Your task to perform on an android device: Go to eBay Image 0: 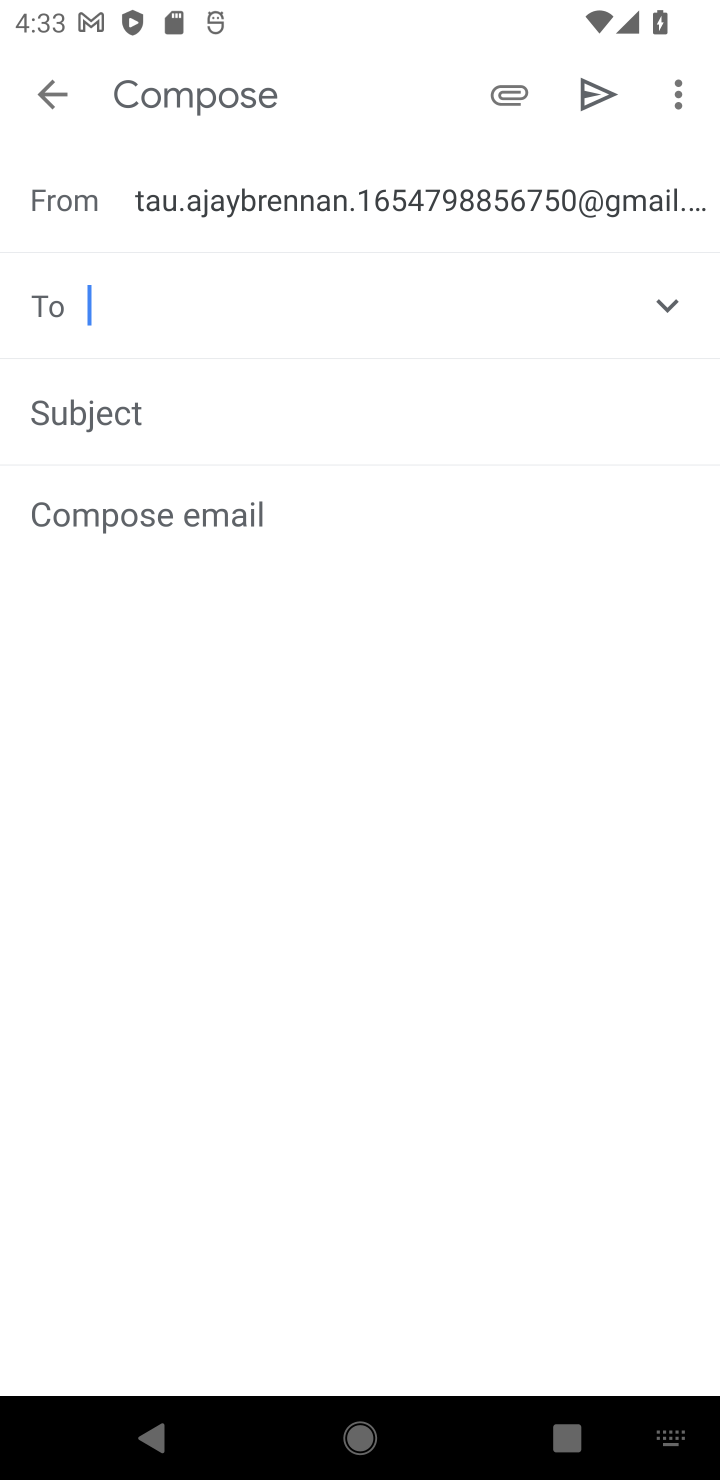
Step 0: press home button
Your task to perform on an android device: Go to eBay Image 1: 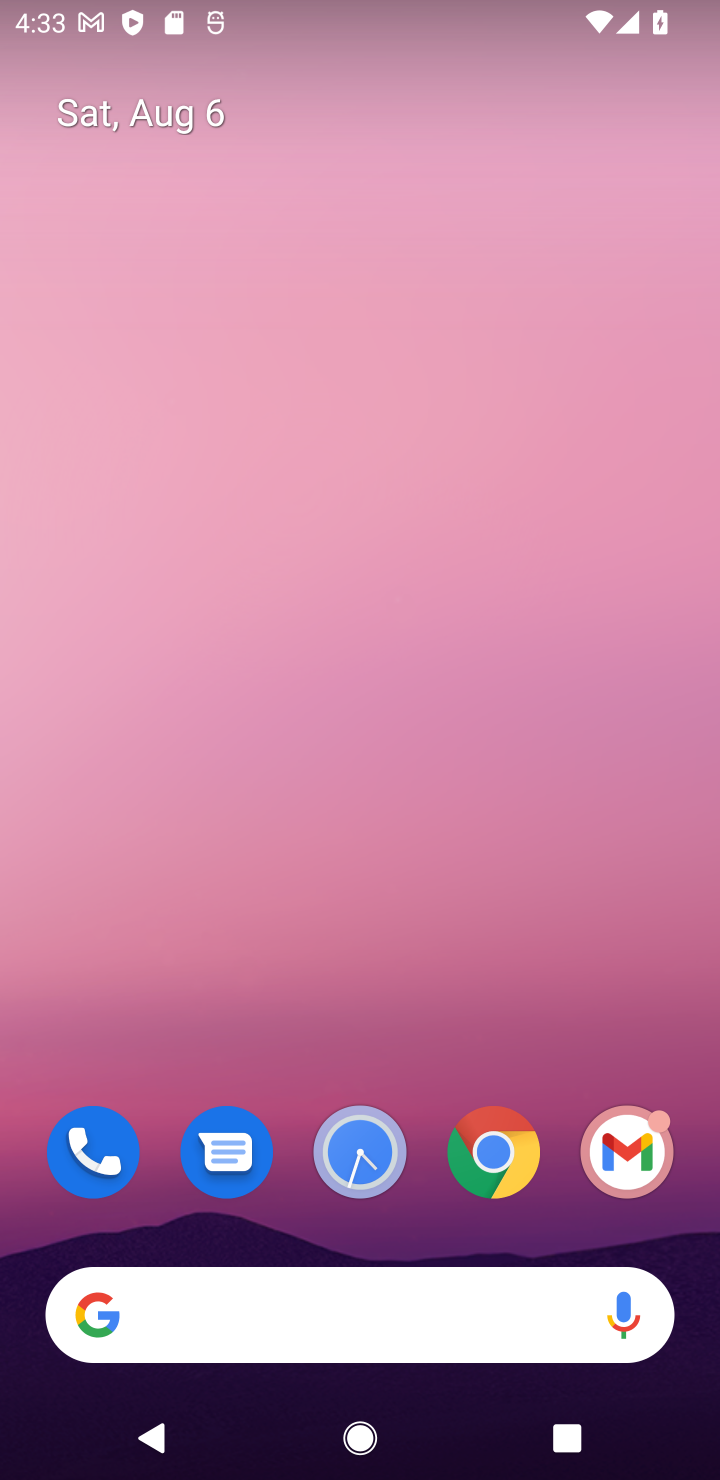
Step 1: drag from (487, 249) to (478, 164)
Your task to perform on an android device: Go to eBay Image 2: 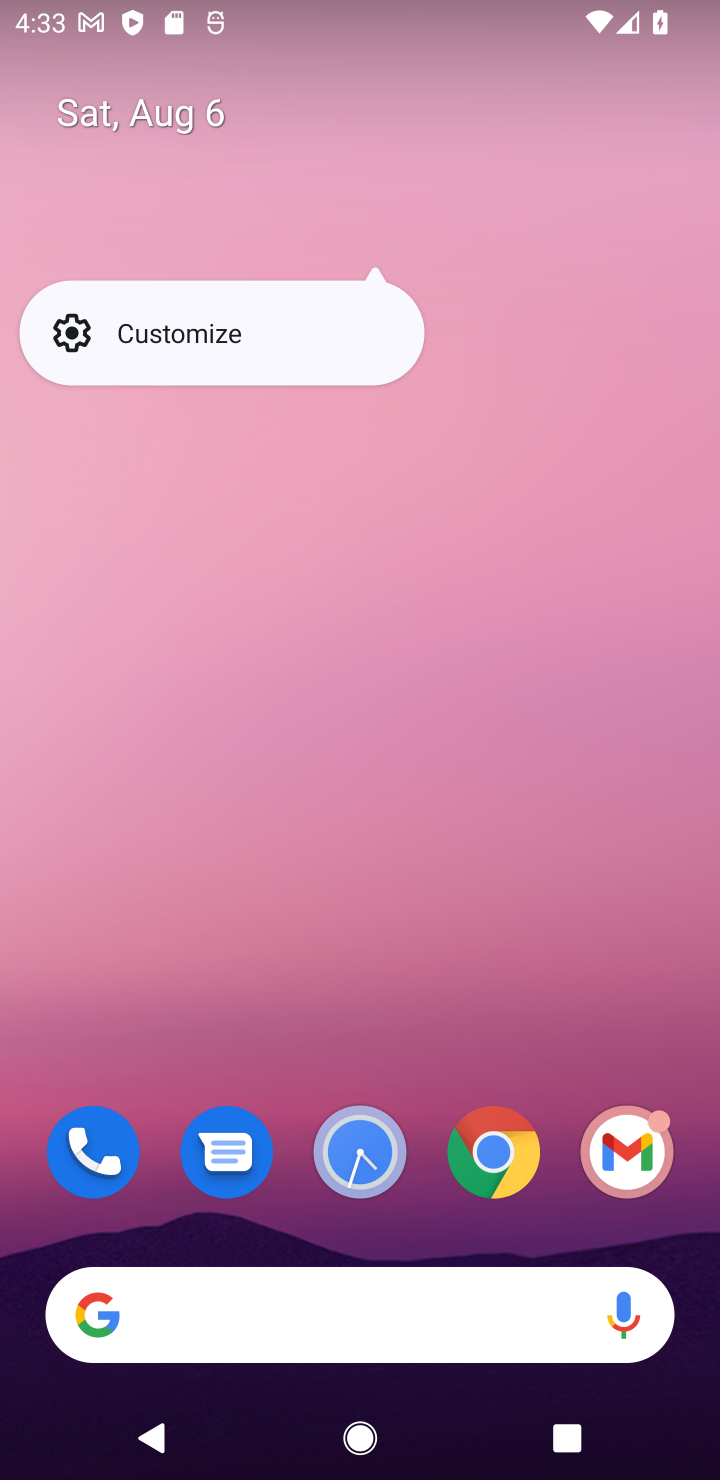
Step 2: click (584, 803)
Your task to perform on an android device: Go to eBay Image 3: 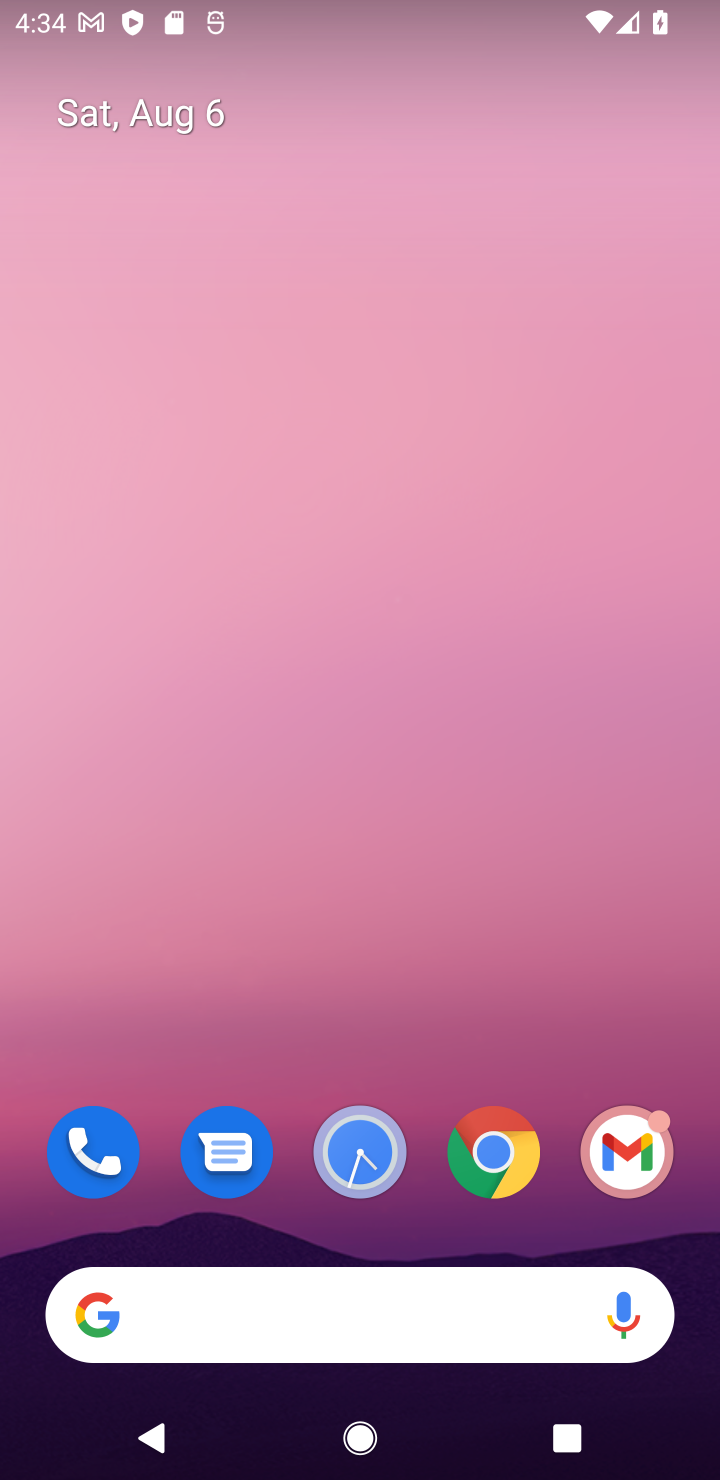
Step 3: drag from (431, 1060) to (298, 108)
Your task to perform on an android device: Go to eBay Image 4: 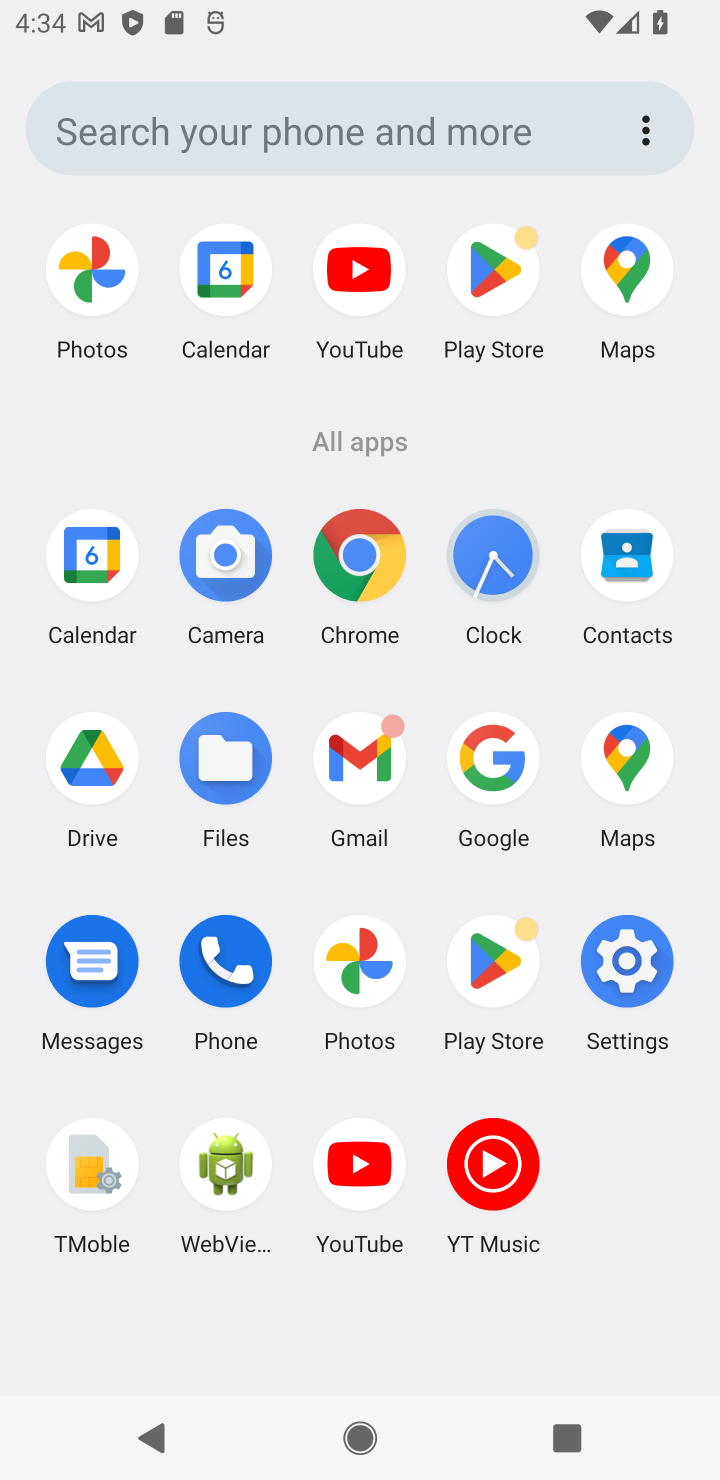
Step 4: click (368, 537)
Your task to perform on an android device: Go to eBay Image 5: 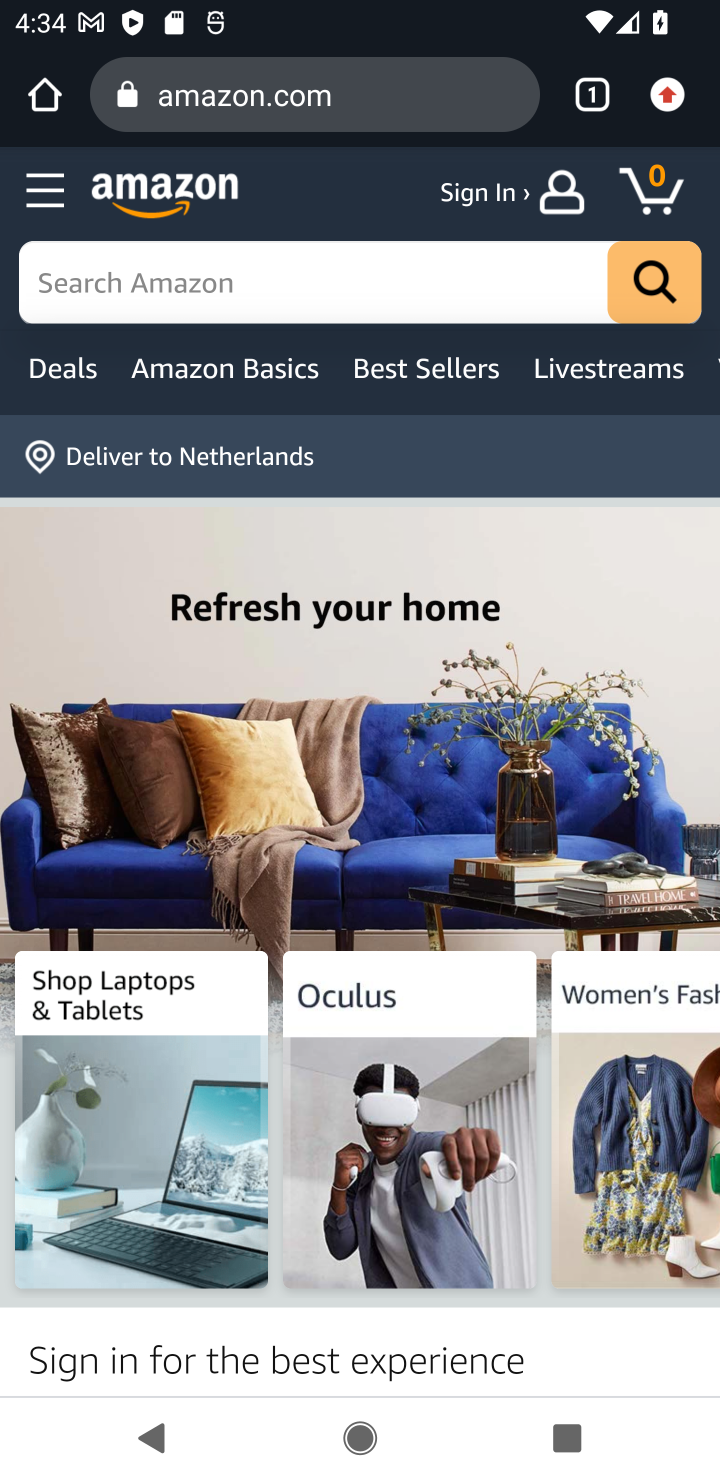
Step 5: click (307, 106)
Your task to perform on an android device: Go to eBay Image 6: 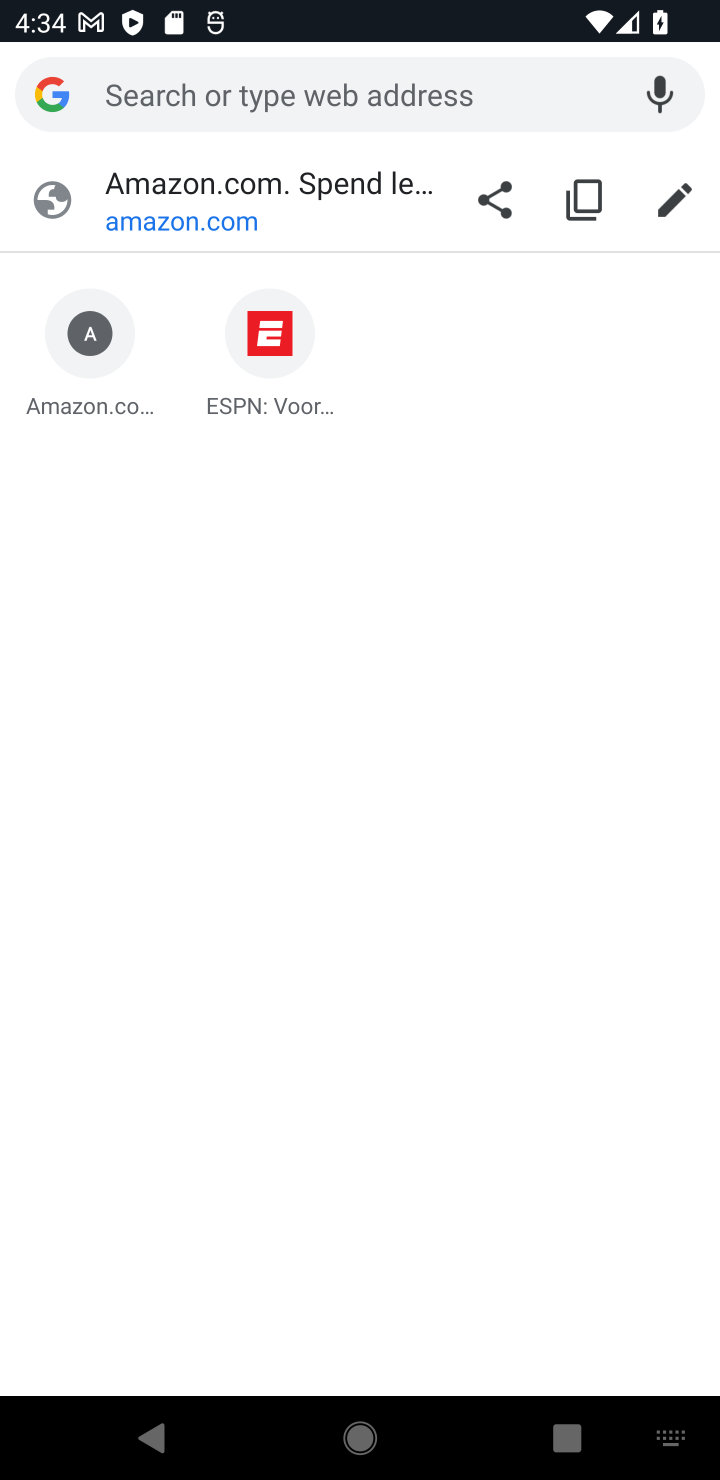
Step 6: type "ebay"
Your task to perform on an android device: Go to eBay Image 7: 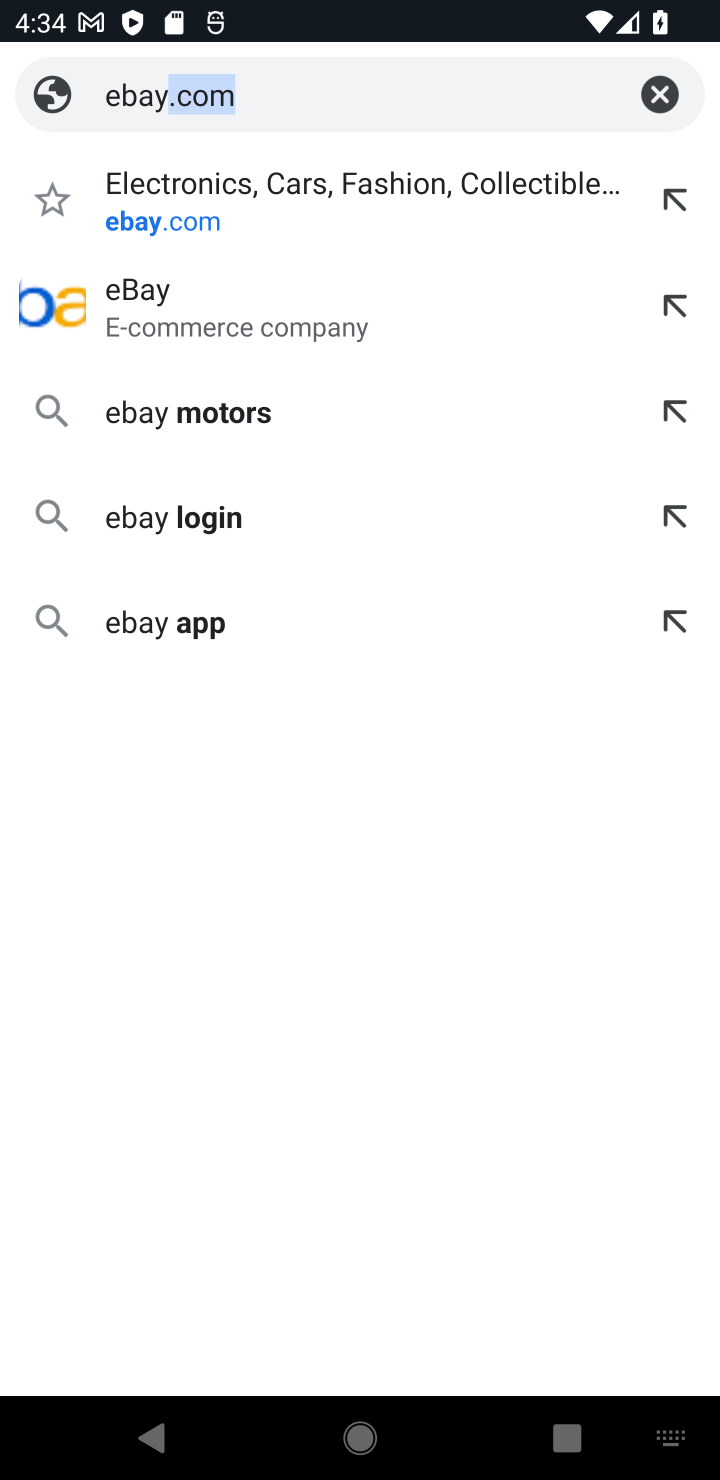
Step 7: click (225, 212)
Your task to perform on an android device: Go to eBay Image 8: 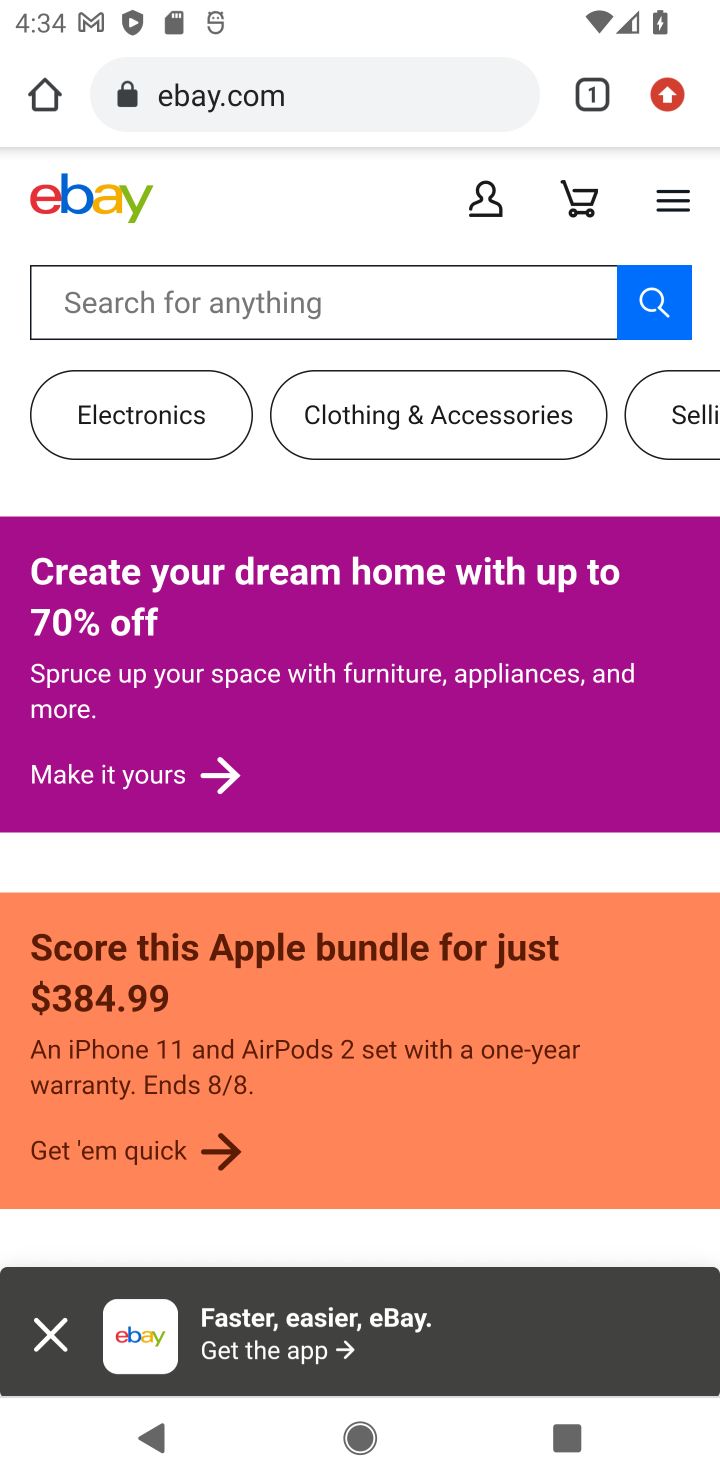
Step 8: task complete